Your task to perform on an android device: turn off sleep mode Image 0: 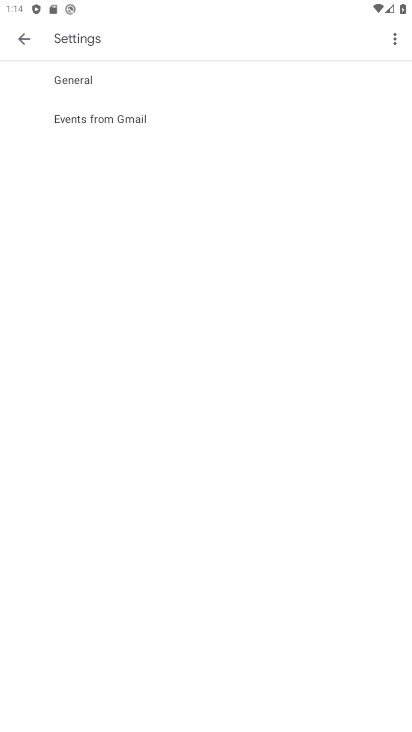
Step 0: press home button
Your task to perform on an android device: turn off sleep mode Image 1: 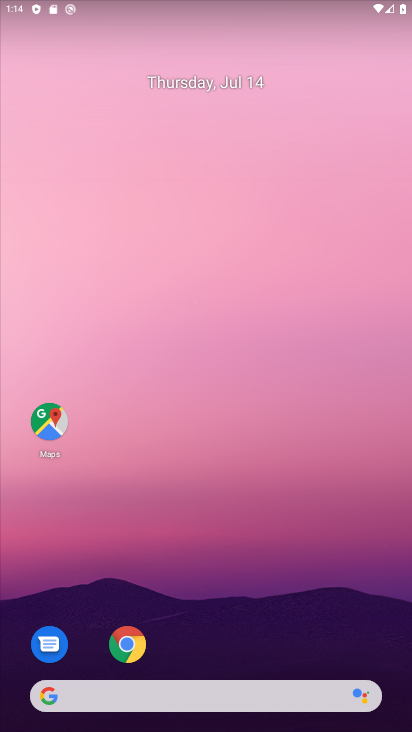
Step 1: click (304, 52)
Your task to perform on an android device: turn off sleep mode Image 2: 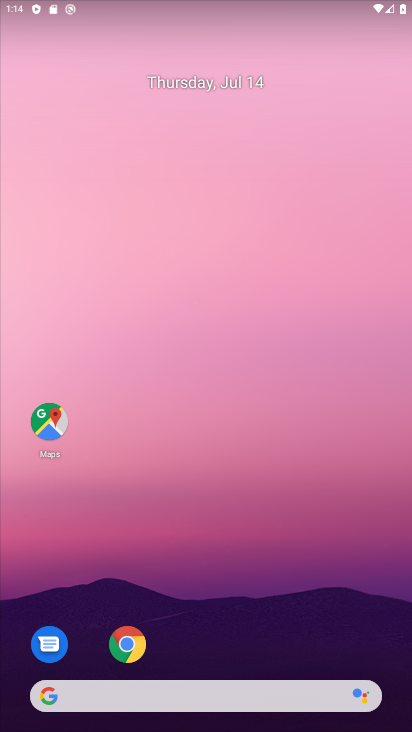
Step 2: drag from (326, 246) to (370, 38)
Your task to perform on an android device: turn off sleep mode Image 3: 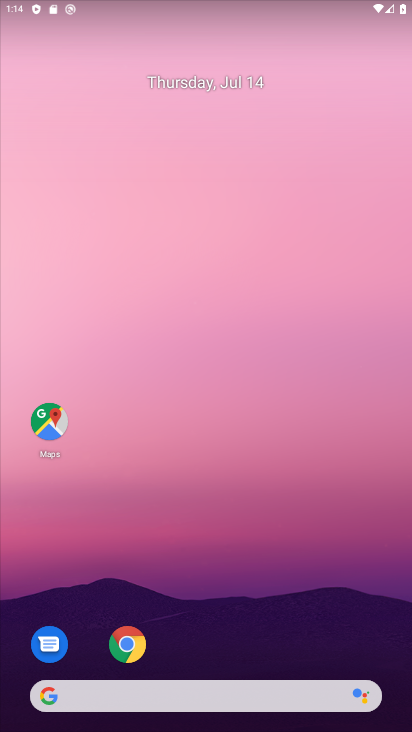
Step 3: drag from (253, 476) to (253, 110)
Your task to perform on an android device: turn off sleep mode Image 4: 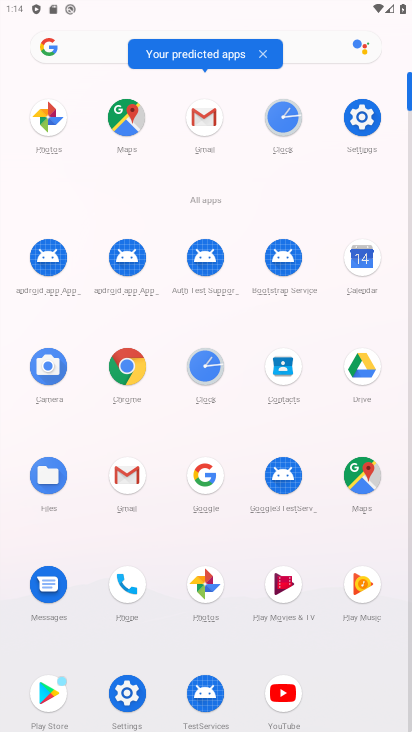
Step 4: click (360, 129)
Your task to perform on an android device: turn off sleep mode Image 5: 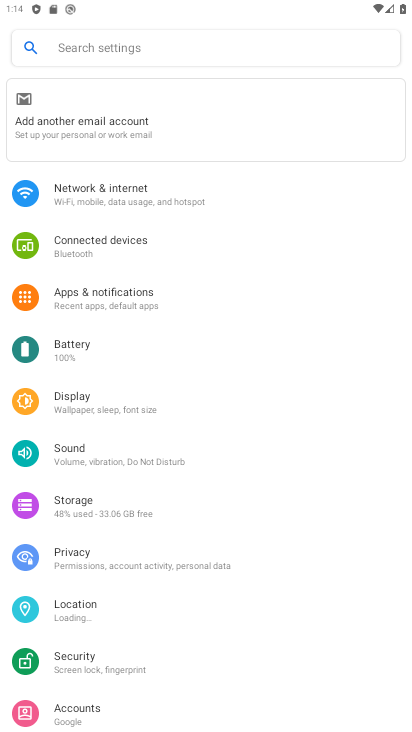
Step 5: click (160, 407)
Your task to perform on an android device: turn off sleep mode Image 6: 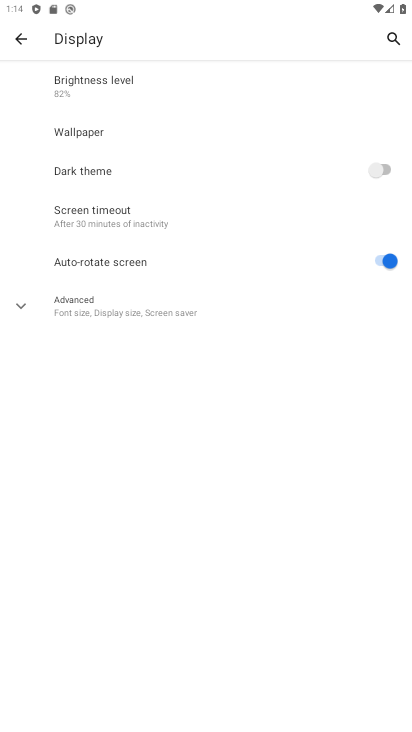
Step 6: click (142, 305)
Your task to perform on an android device: turn off sleep mode Image 7: 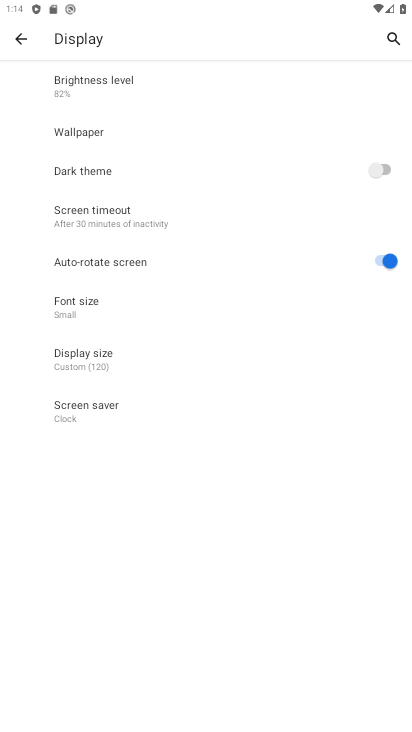
Step 7: task complete